Your task to perform on an android device: read, delete, or share a saved page in the chrome app Image 0: 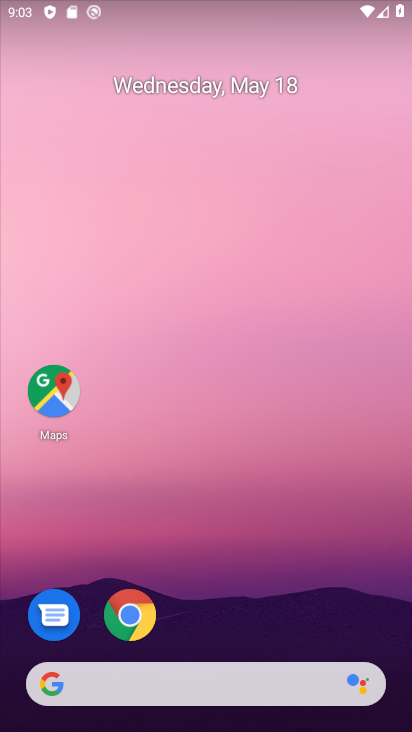
Step 0: click (139, 621)
Your task to perform on an android device: read, delete, or share a saved page in the chrome app Image 1: 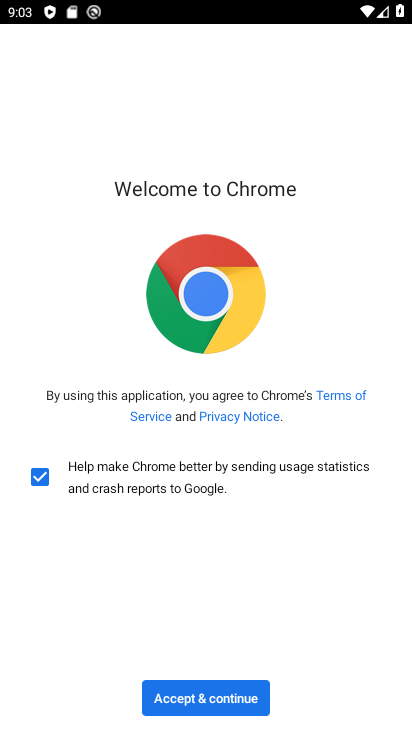
Step 1: click (175, 709)
Your task to perform on an android device: read, delete, or share a saved page in the chrome app Image 2: 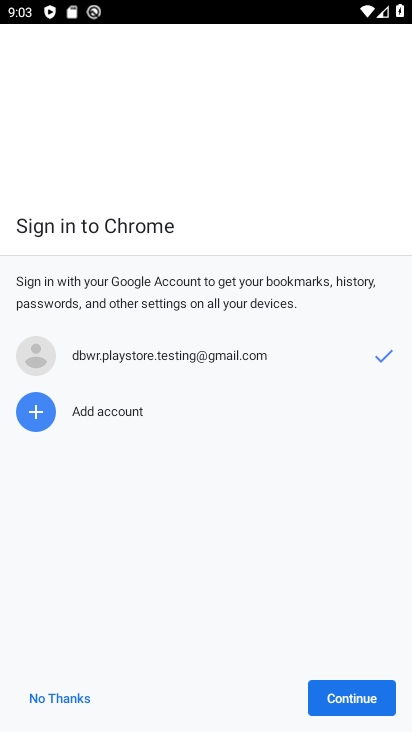
Step 2: click (332, 698)
Your task to perform on an android device: read, delete, or share a saved page in the chrome app Image 3: 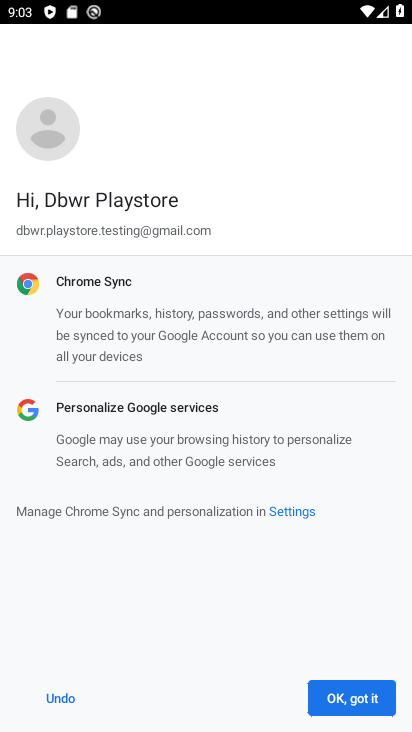
Step 3: click (332, 698)
Your task to perform on an android device: read, delete, or share a saved page in the chrome app Image 4: 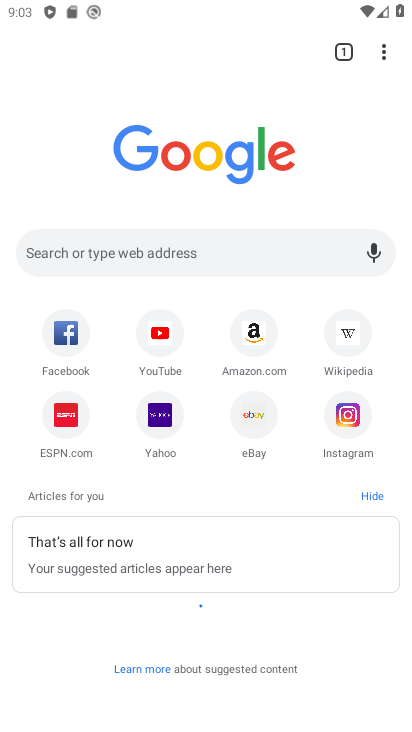
Step 4: click (379, 52)
Your task to perform on an android device: read, delete, or share a saved page in the chrome app Image 5: 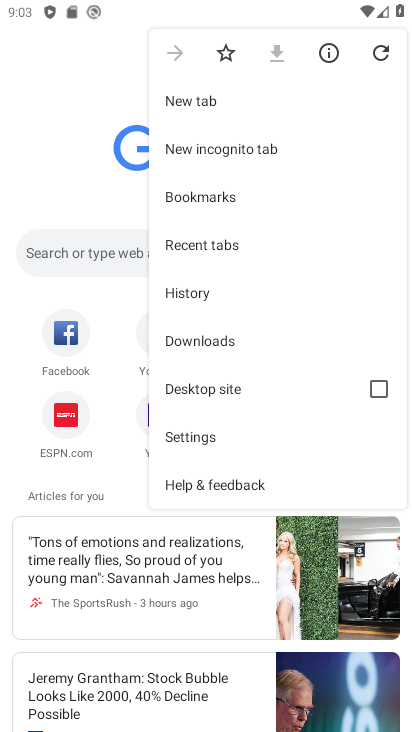
Step 5: click (243, 343)
Your task to perform on an android device: read, delete, or share a saved page in the chrome app Image 6: 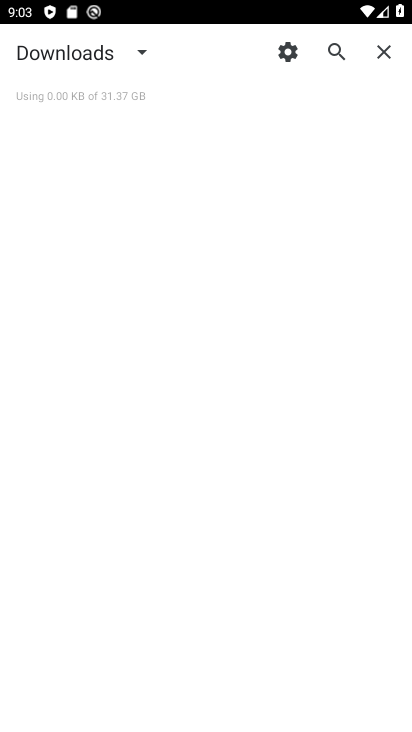
Step 6: task complete